Your task to perform on an android device: toggle location history Image 0: 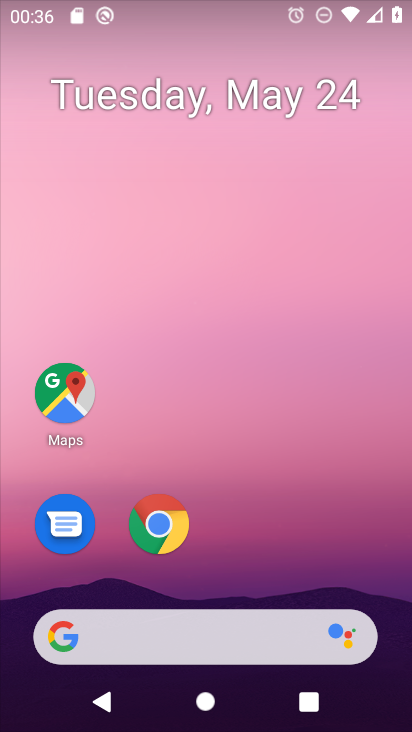
Step 0: drag from (231, 577) to (230, 156)
Your task to perform on an android device: toggle location history Image 1: 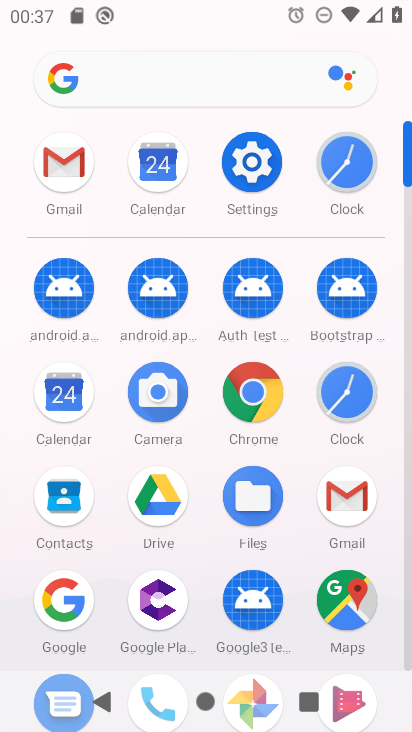
Step 1: click (269, 156)
Your task to perform on an android device: toggle location history Image 2: 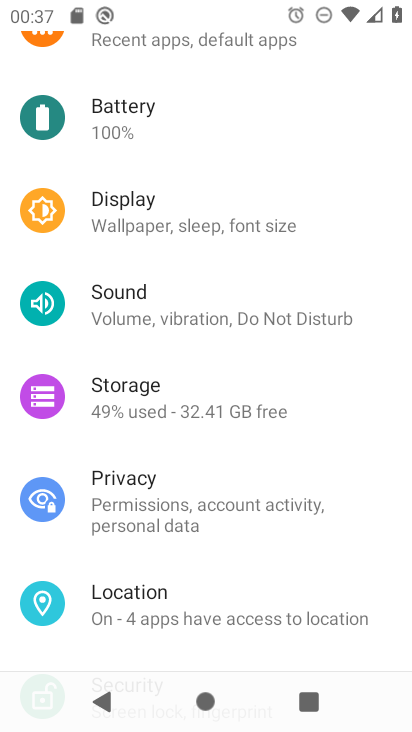
Step 2: click (185, 613)
Your task to perform on an android device: toggle location history Image 3: 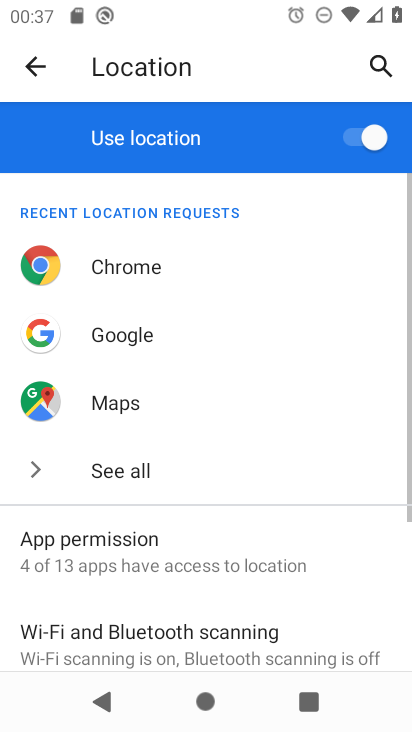
Step 3: drag from (208, 533) to (247, 216)
Your task to perform on an android device: toggle location history Image 4: 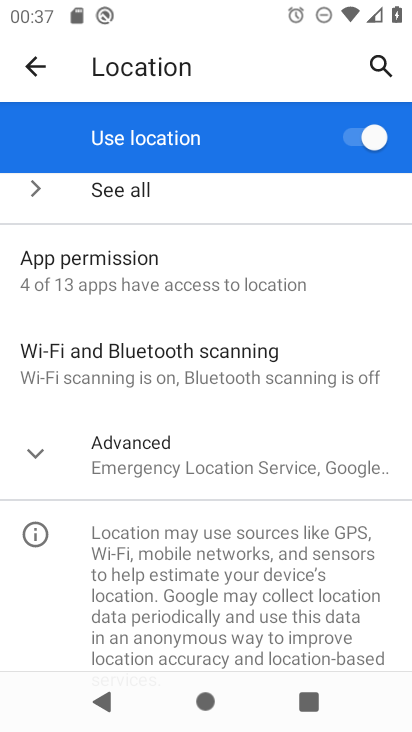
Step 4: click (201, 461)
Your task to perform on an android device: toggle location history Image 5: 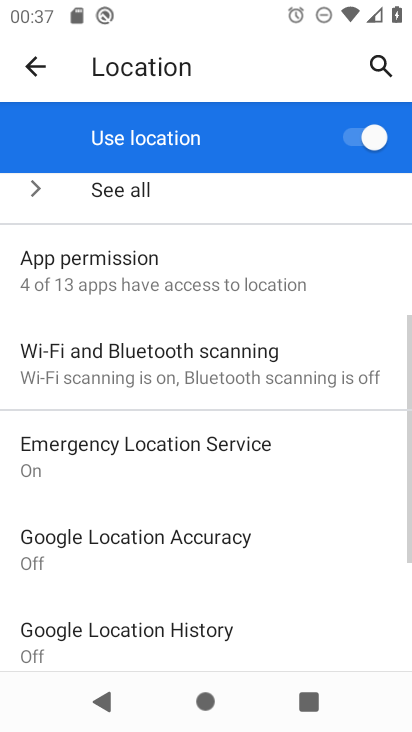
Step 5: drag from (239, 617) to (255, 401)
Your task to perform on an android device: toggle location history Image 6: 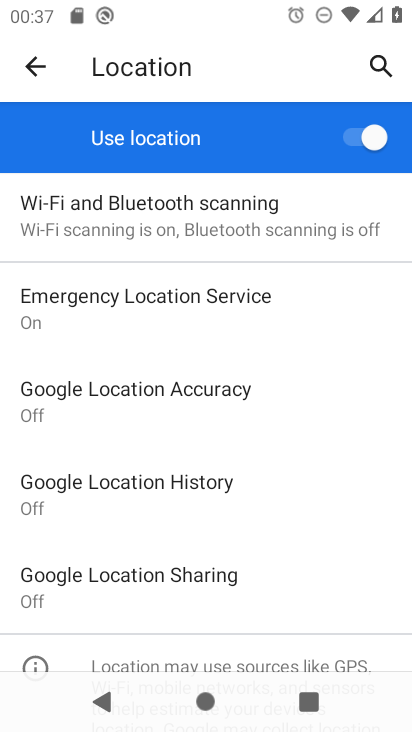
Step 6: click (208, 494)
Your task to perform on an android device: toggle location history Image 7: 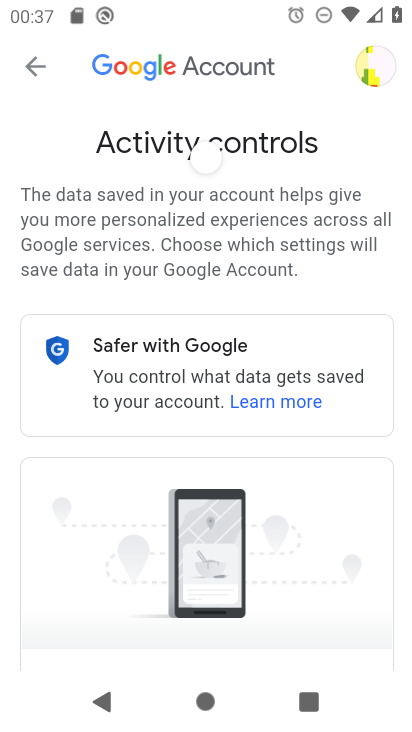
Step 7: drag from (257, 303) to (257, 210)
Your task to perform on an android device: toggle location history Image 8: 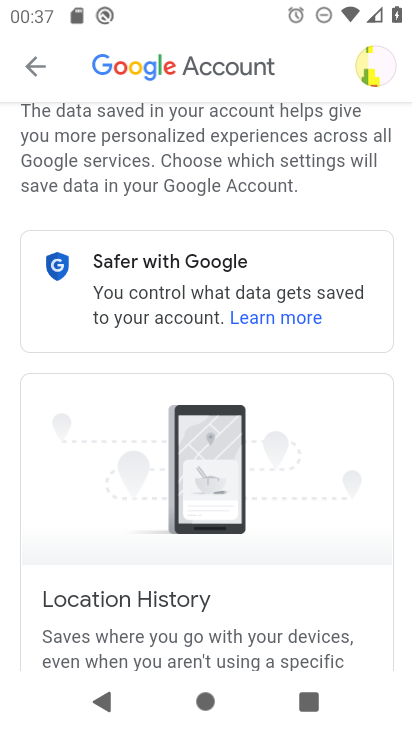
Step 8: drag from (275, 593) to (329, 227)
Your task to perform on an android device: toggle location history Image 9: 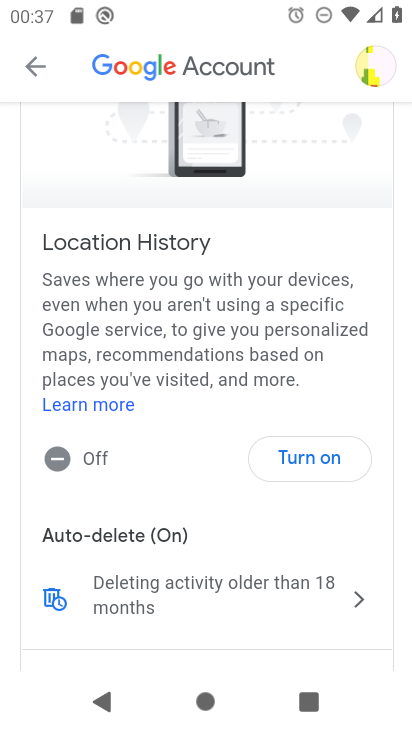
Step 9: click (315, 461)
Your task to perform on an android device: toggle location history Image 10: 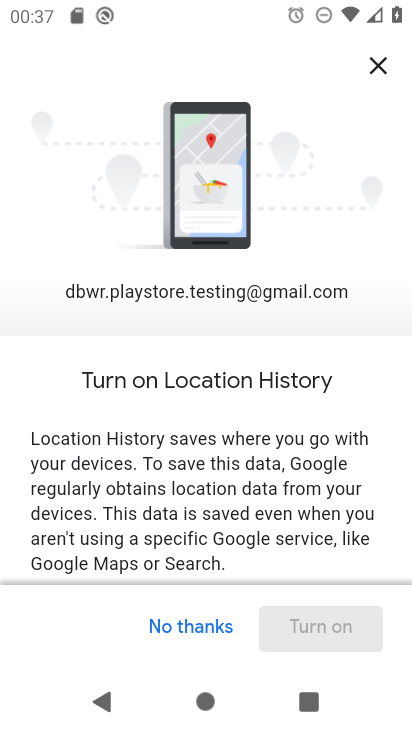
Step 10: drag from (264, 568) to (265, 169)
Your task to perform on an android device: toggle location history Image 11: 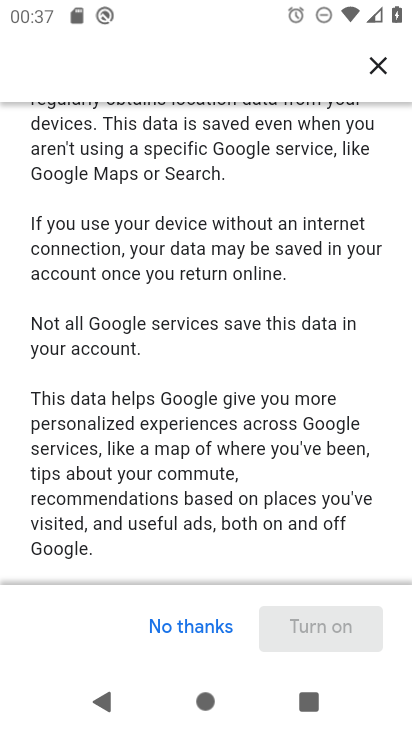
Step 11: drag from (265, 508) to (271, 207)
Your task to perform on an android device: toggle location history Image 12: 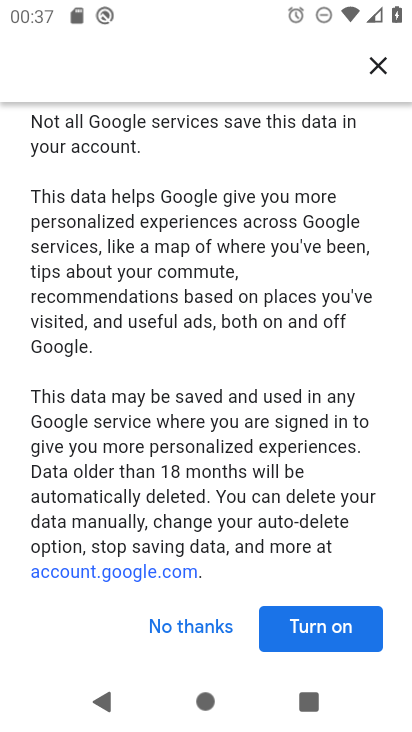
Step 12: drag from (266, 498) to (273, 188)
Your task to perform on an android device: toggle location history Image 13: 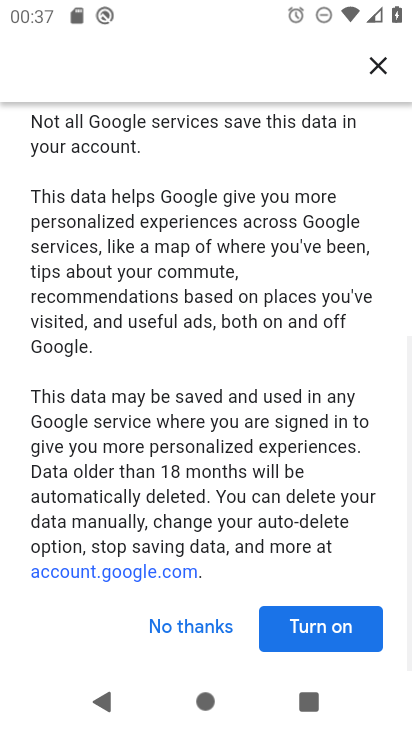
Step 13: click (317, 637)
Your task to perform on an android device: toggle location history Image 14: 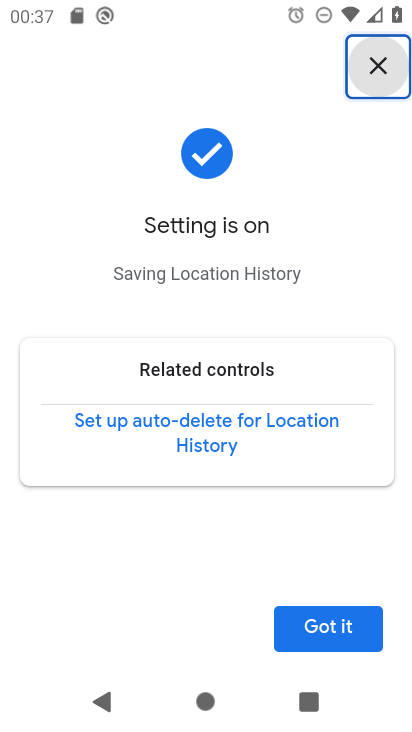
Step 14: task complete